Your task to perform on an android device: Go to privacy settings Image 0: 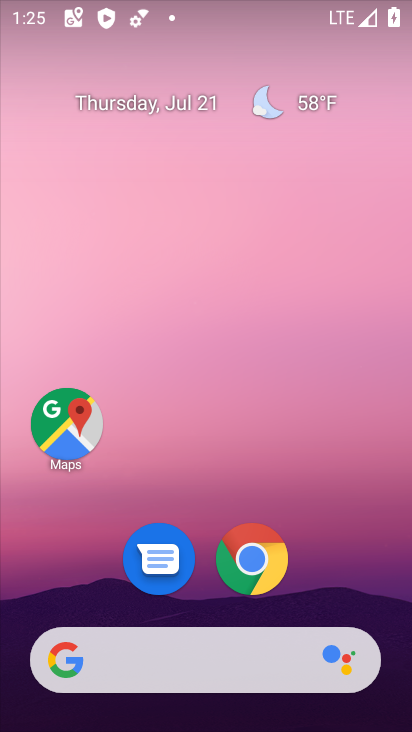
Step 0: drag from (370, 577) to (357, 163)
Your task to perform on an android device: Go to privacy settings Image 1: 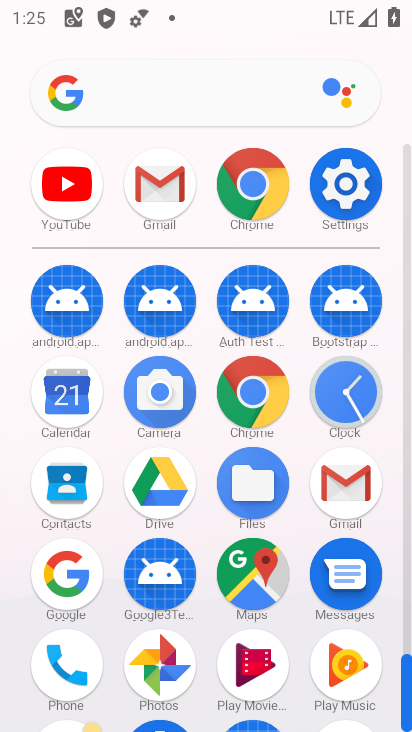
Step 1: click (345, 180)
Your task to perform on an android device: Go to privacy settings Image 2: 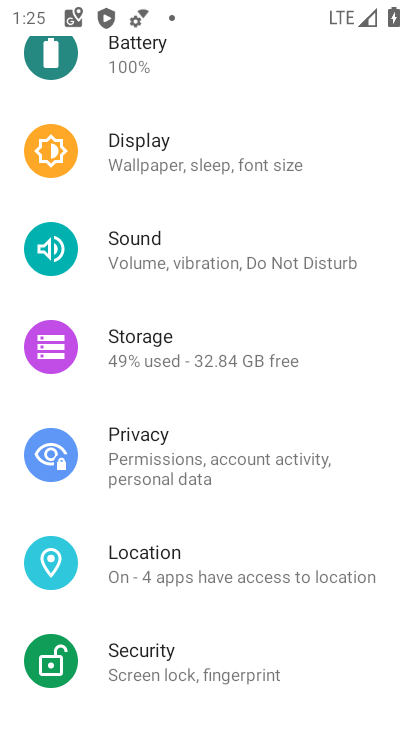
Step 2: drag from (359, 387) to (359, 325)
Your task to perform on an android device: Go to privacy settings Image 3: 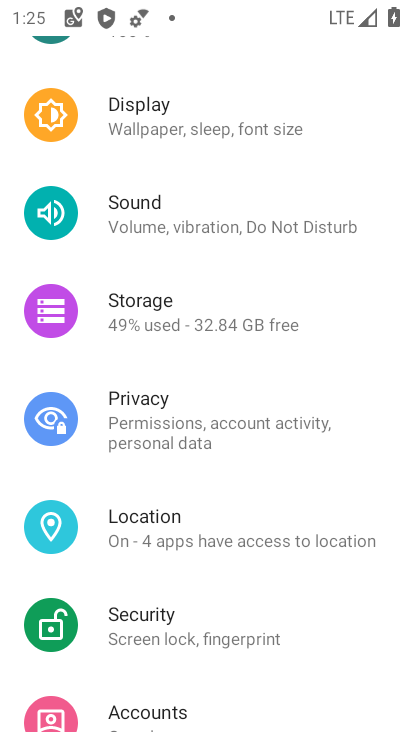
Step 3: drag from (360, 425) to (363, 374)
Your task to perform on an android device: Go to privacy settings Image 4: 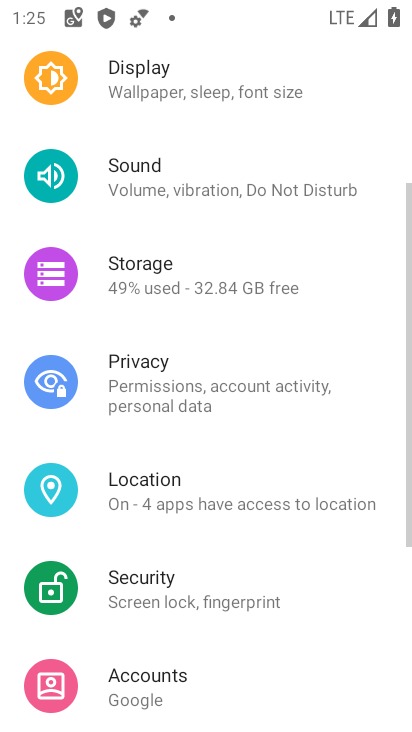
Step 4: drag from (374, 447) to (373, 386)
Your task to perform on an android device: Go to privacy settings Image 5: 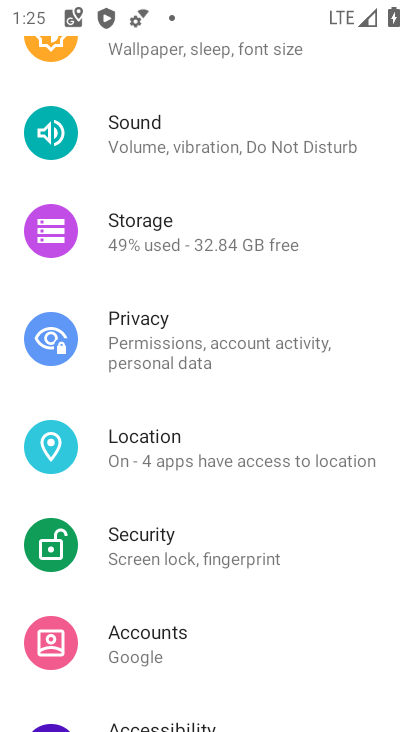
Step 5: drag from (357, 499) to (357, 450)
Your task to perform on an android device: Go to privacy settings Image 6: 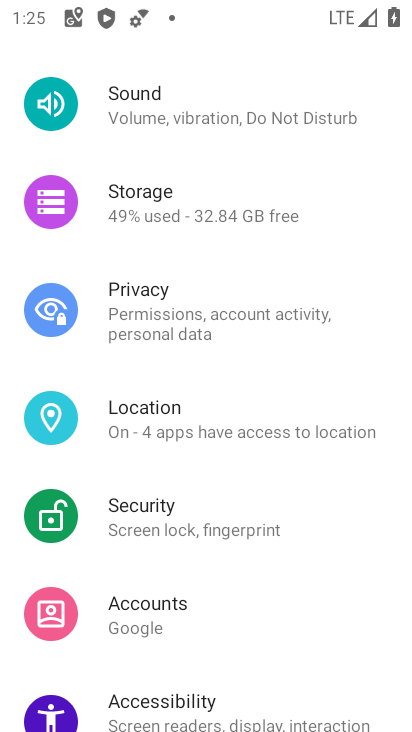
Step 6: drag from (361, 541) to (352, 465)
Your task to perform on an android device: Go to privacy settings Image 7: 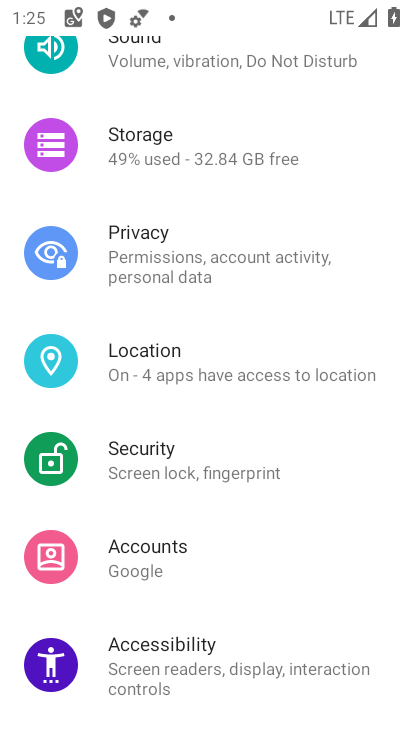
Step 7: drag from (363, 530) to (358, 467)
Your task to perform on an android device: Go to privacy settings Image 8: 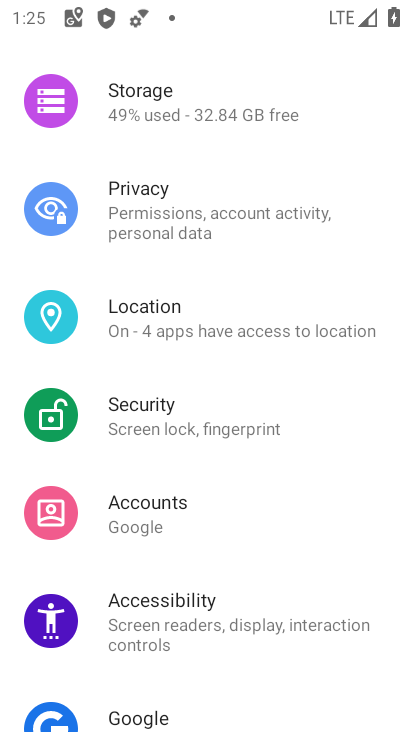
Step 8: drag from (361, 526) to (357, 485)
Your task to perform on an android device: Go to privacy settings Image 9: 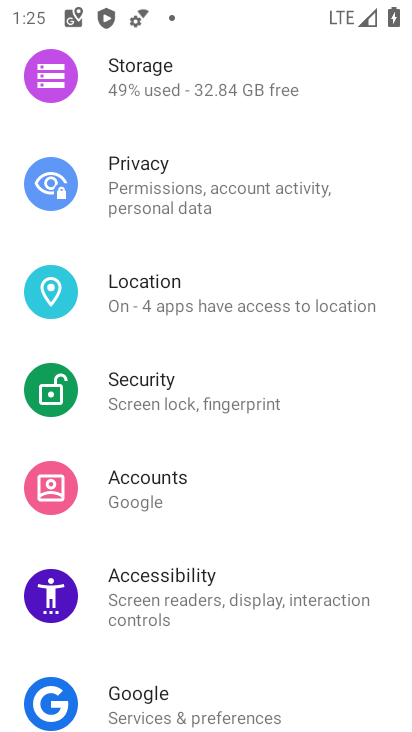
Step 9: drag from (355, 525) to (347, 472)
Your task to perform on an android device: Go to privacy settings Image 10: 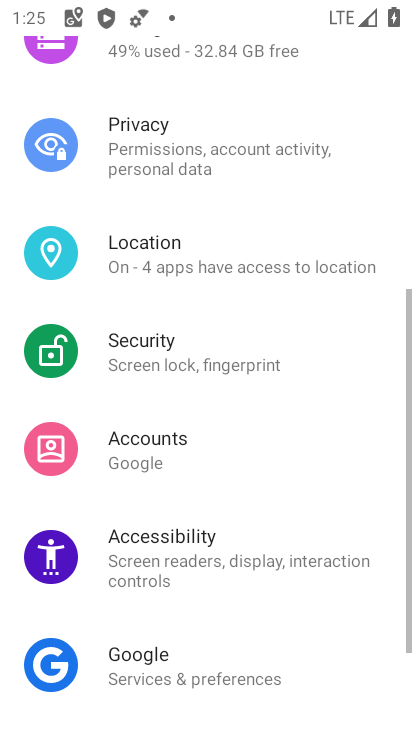
Step 10: drag from (356, 518) to (349, 455)
Your task to perform on an android device: Go to privacy settings Image 11: 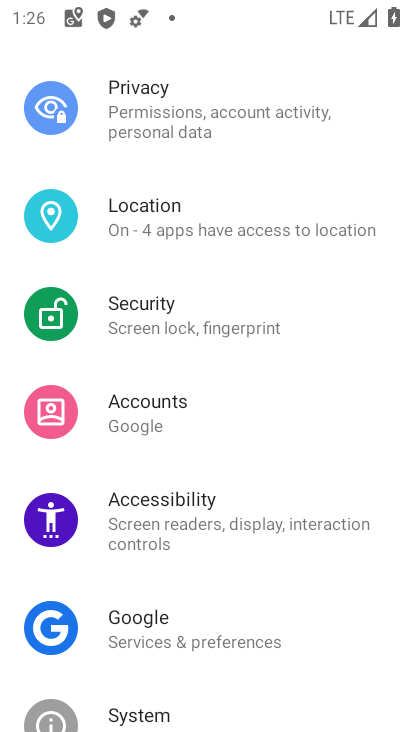
Step 11: drag from (349, 560) to (353, 499)
Your task to perform on an android device: Go to privacy settings Image 12: 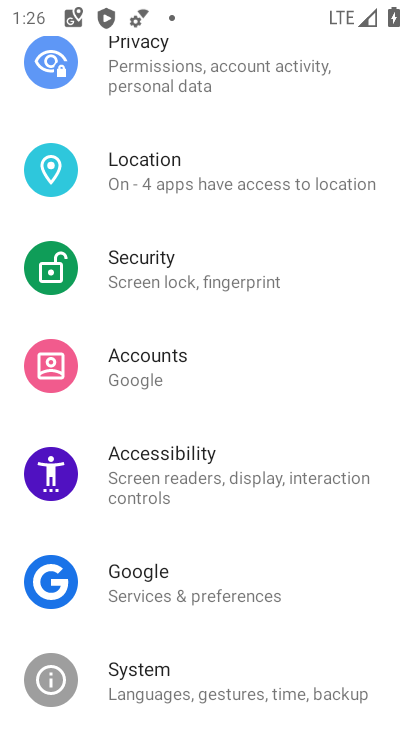
Step 12: drag from (355, 430) to (350, 483)
Your task to perform on an android device: Go to privacy settings Image 13: 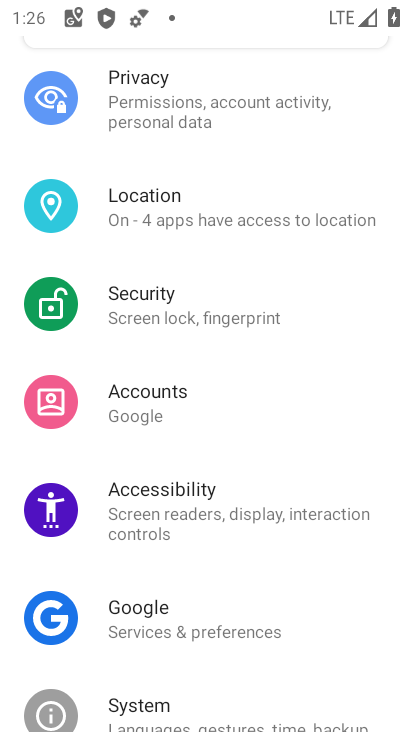
Step 13: drag from (359, 415) to (356, 487)
Your task to perform on an android device: Go to privacy settings Image 14: 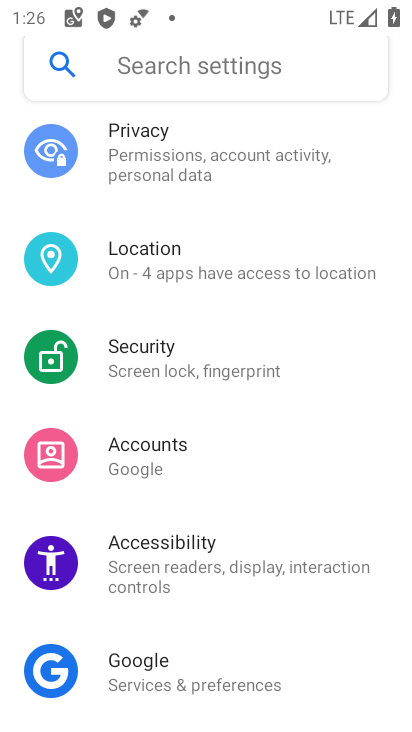
Step 14: drag from (353, 338) to (349, 471)
Your task to perform on an android device: Go to privacy settings Image 15: 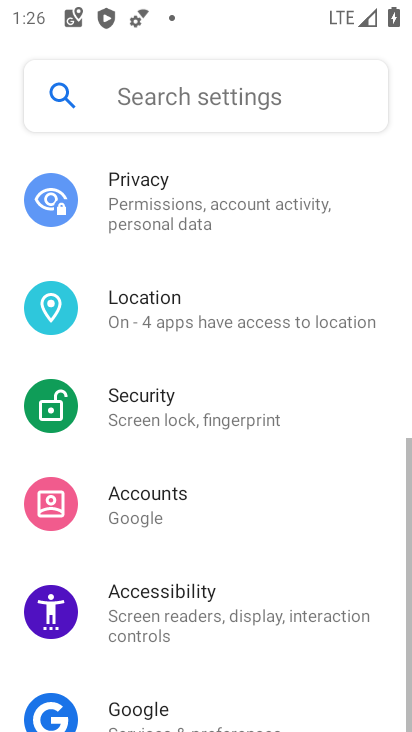
Step 15: drag from (343, 348) to (340, 408)
Your task to perform on an android device: Go to privacy settings Image 16: 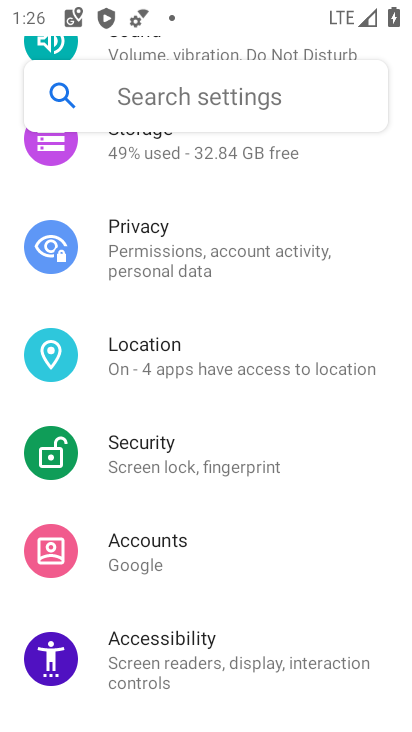
Step 16: drag from (358, 307) to (358, 387)
Your task to perform on an android device: Go to privacy settings Image 17: 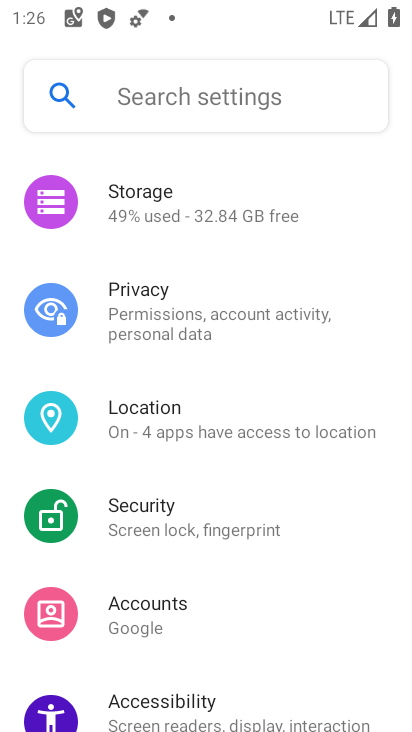
Step 17: click (297, 307)
Your task to perform on an android device: Go to privacy settings Image 18: 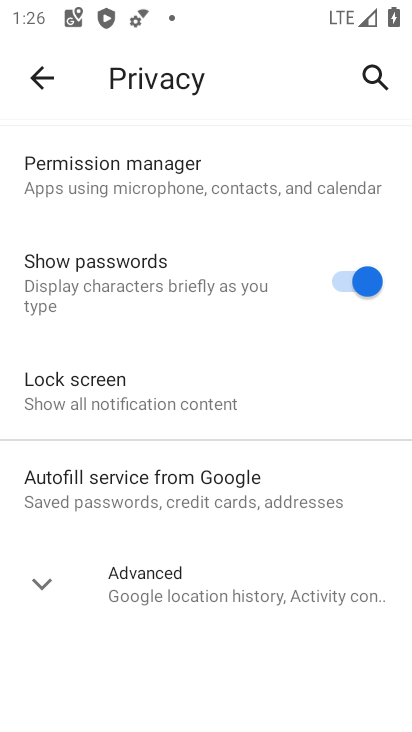
Step 18: task complete